Your task to perform on an android device: Open Google Image 0: 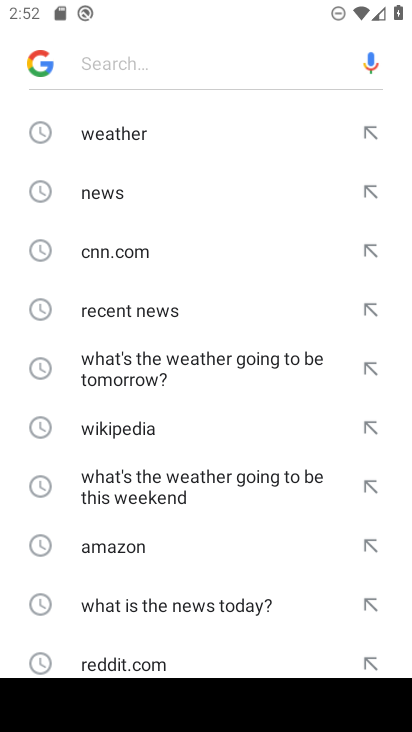
Step 0: press home button
Your task to perform on an android device: Open Google Image 1: 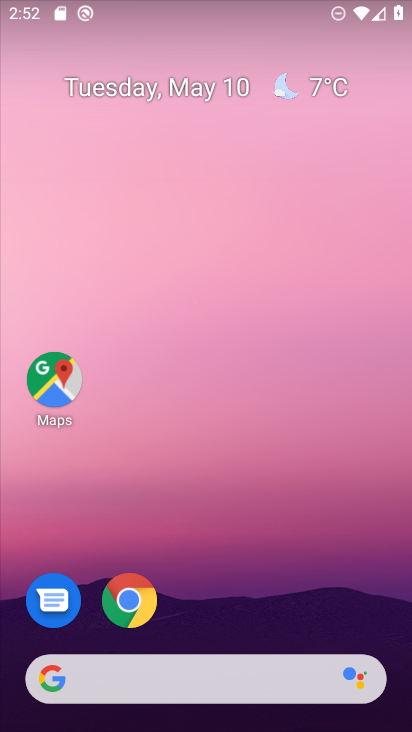
Step 1: drag from (196, 677) to (140, 122)
Your task to perform on an android device: Open Google Image 2: 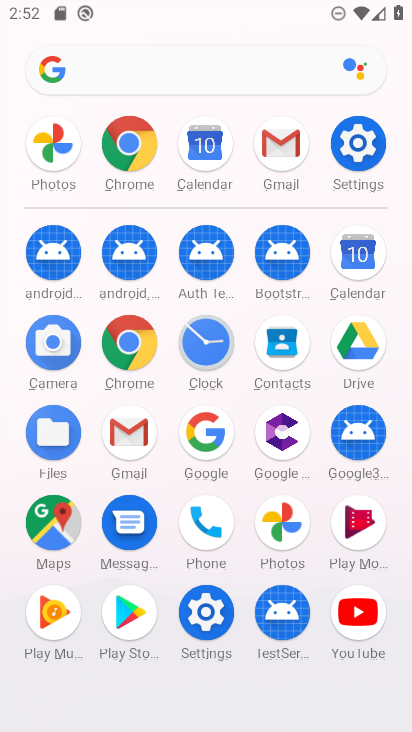
Step 2: click (217, 456)
Your task to perform on an android device: Open Google Image 3: 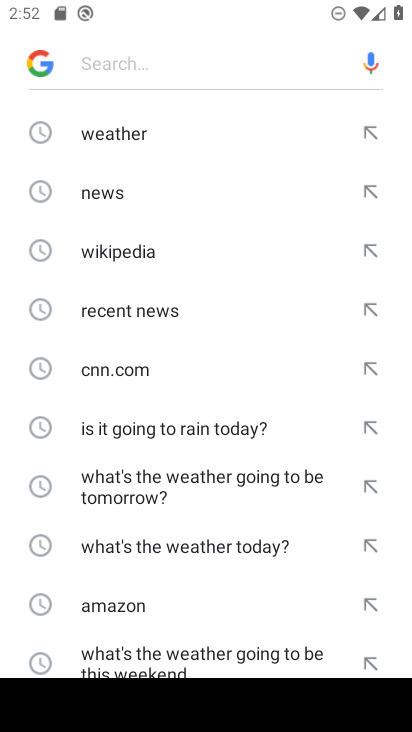
Step 3: task complete